Your task to perform on an android device: Go to sound settings Image 0: 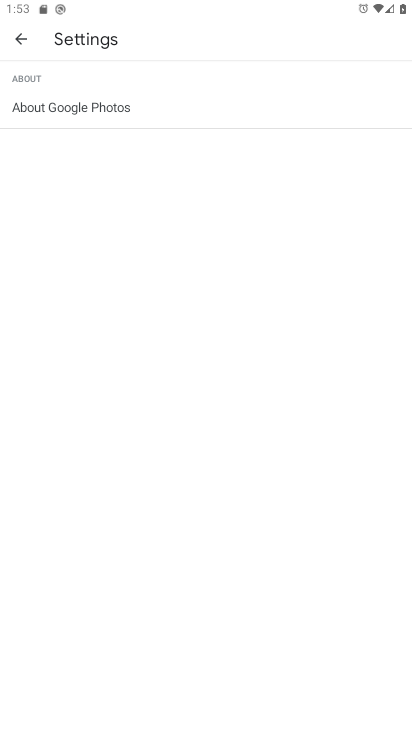
Step 0: press home button
Your task to perform on an android device: Go to sound settings Image 1: 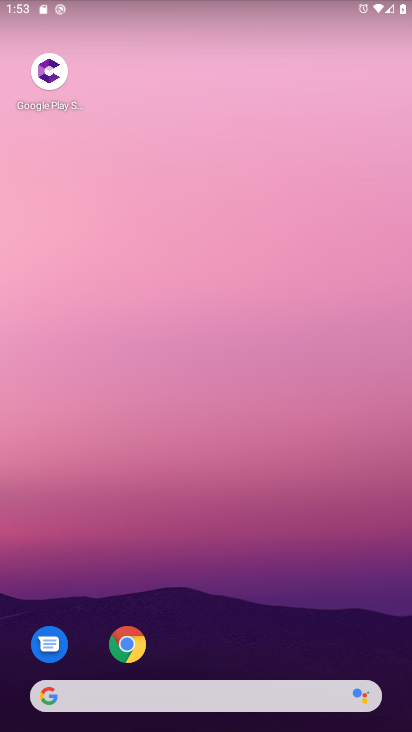
Step 1: drag from (186, 636) to (162, 232)
Your task to perform on an android device: Go to sound settings Image 2: 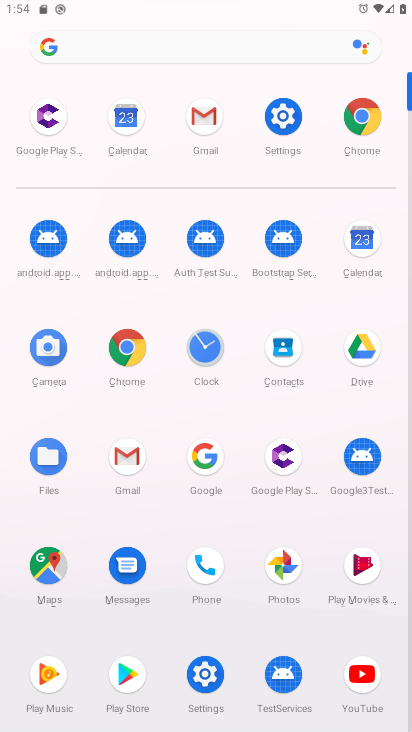
Step 2: click (286, 122)
Your task to perform on an android device: Go to sound settings Image 3: 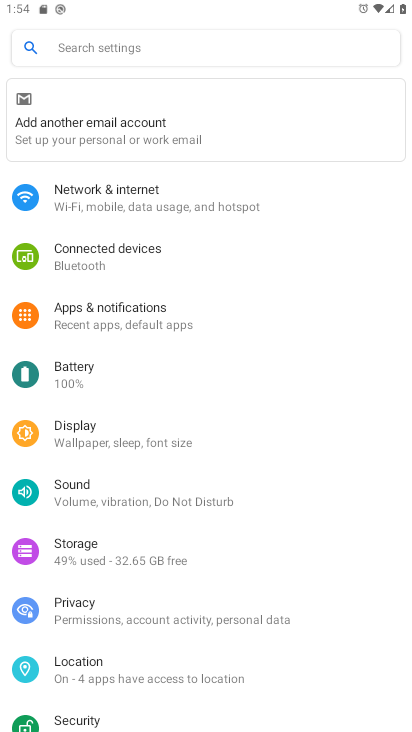
Step 3: click (87, 487)
Your task to perform on an android device: Go to sound settings Image 4: 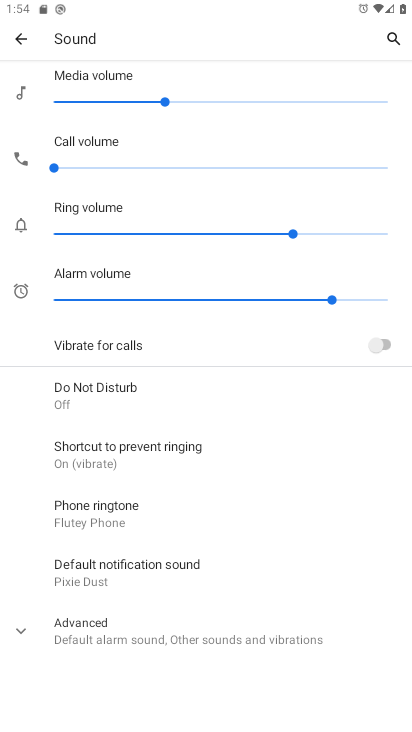
Step 4: task complete